Your task to perform on an android device: move a message to another label in the gmail app Image 0: 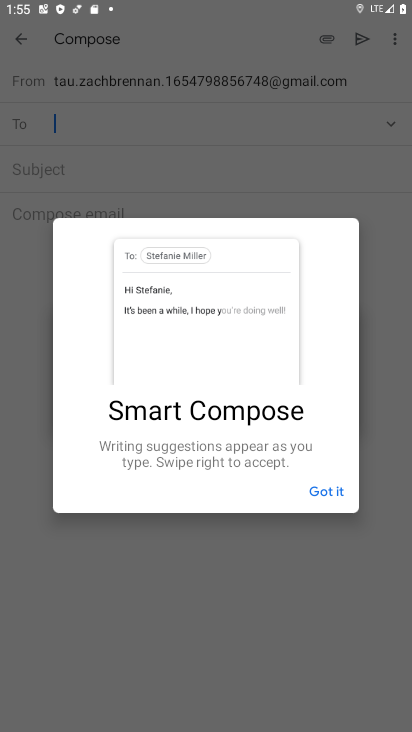
Step 0: press home button
Your task to perform on an android device: move a message to another label in the gmail app Image 1: 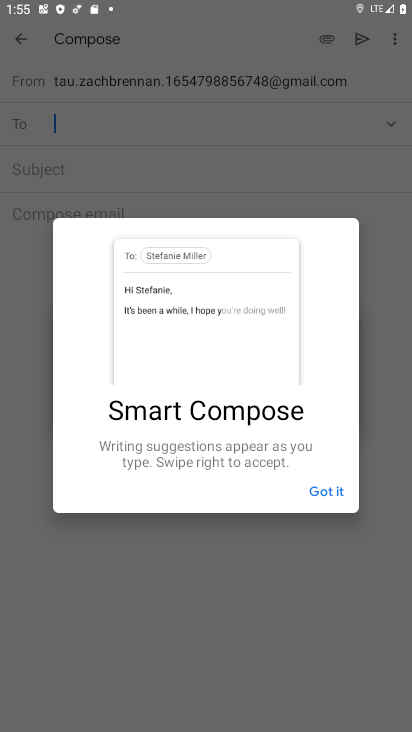
Step 1: drag from (341, 701) to (305, 31)
Your task to perform on an android device: move a message to another label in the gmail app Image 2: 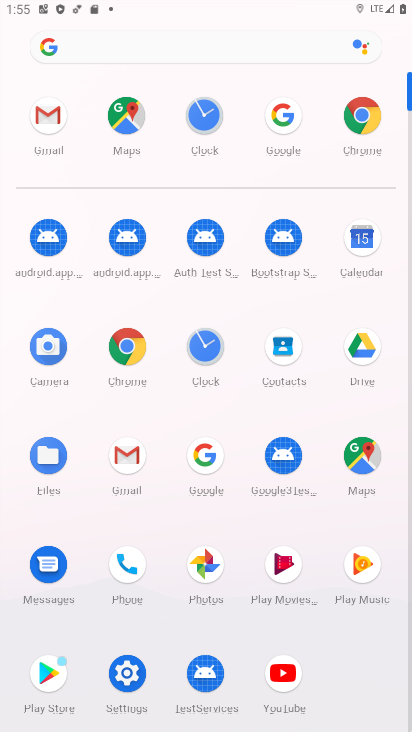
Step 2: click (128, 453)
Your task to perform on an android device: move a message to another label in the gmail app Image 3: 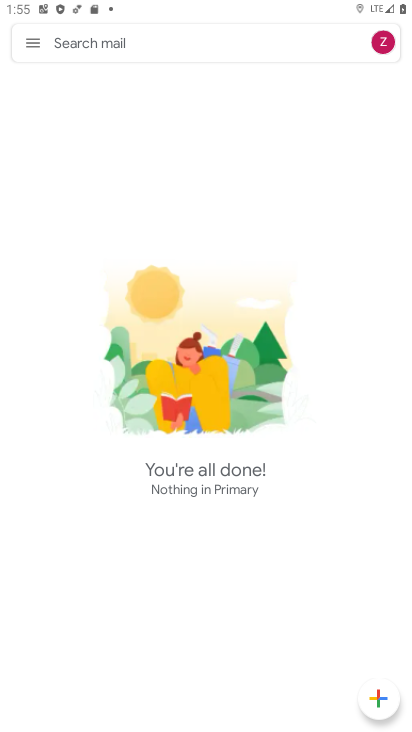
Step 3: task complete